Your task to perform on an android device: set an alarm Image 0: 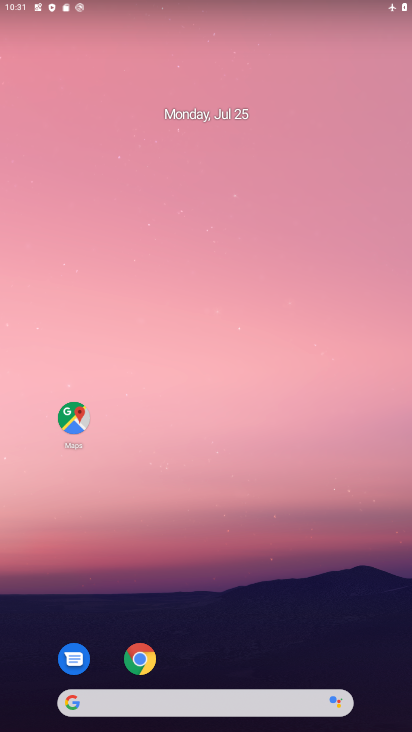
Step 0: drag from (207, 664) to (190, 186)
Your task to perform on an android device: set an alarm Image 1: 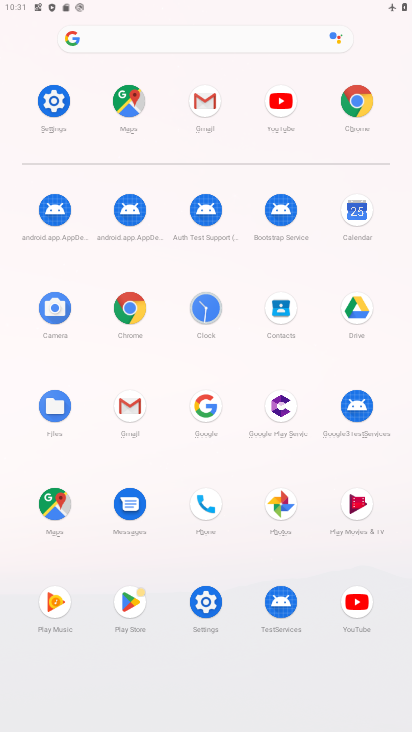
Step 1: click (201, 323)
Your task to perform on an android device: set an alarm Image 2: 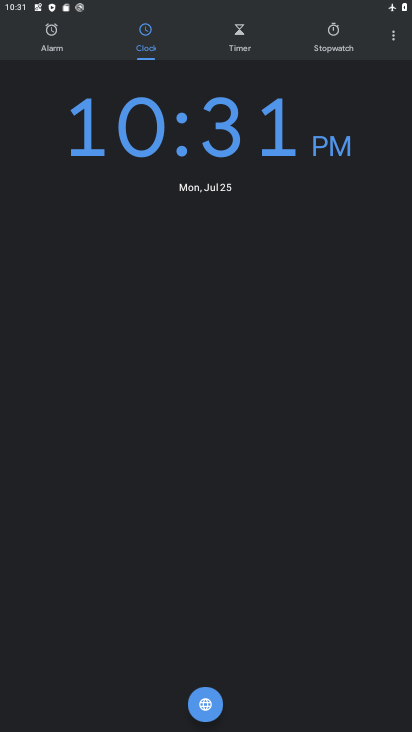
Step 2: click (53, 46)
Your task to perform on an android device: set an alarm Image 3: 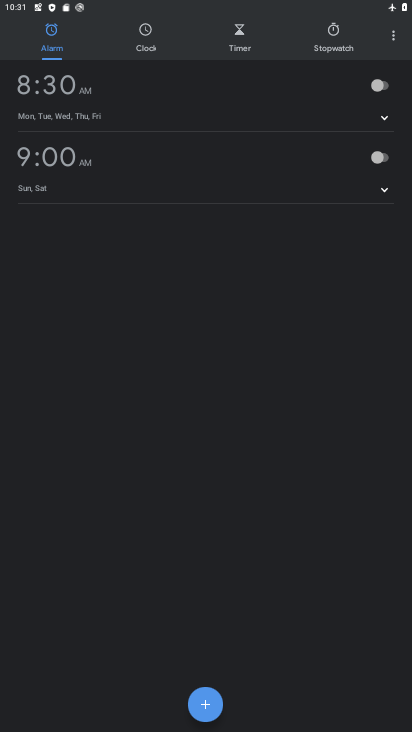
Step 3: click (211, 688)
Your task to perform on an android device: set an alarm Image 4: 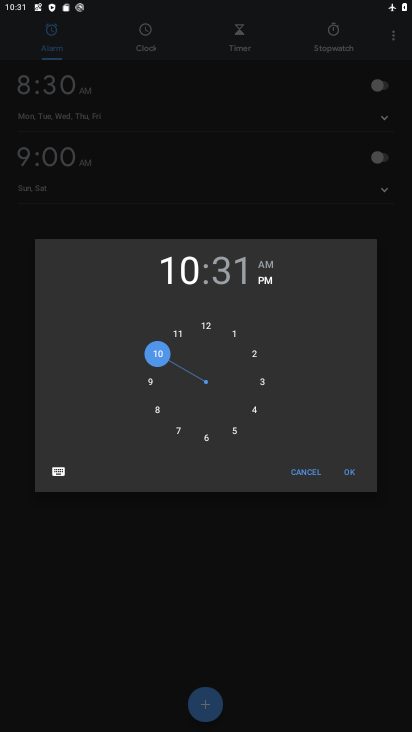
Step 4: click (355, 463)
Your task to perform on an android device: set an alarm Image 5: 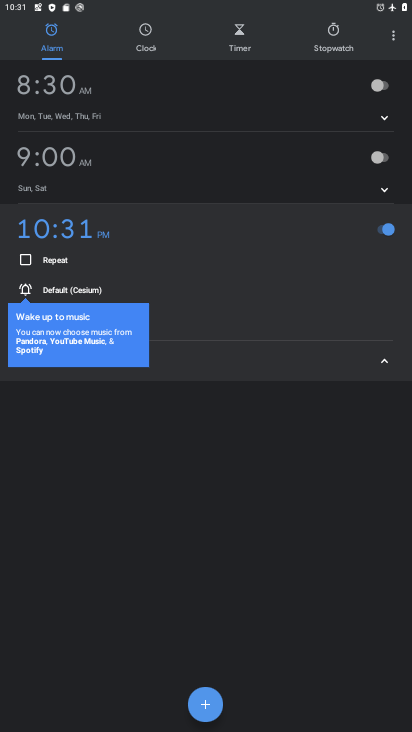
Step 5: task complete